Your task to perform on an android device: toggle sleep mode Image 0: 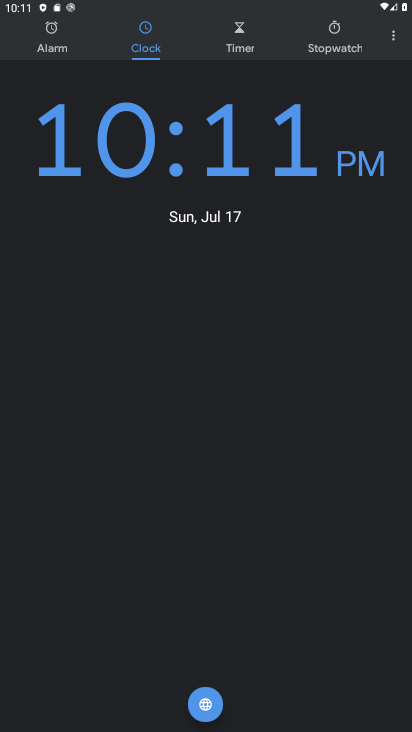
Step 0: press home button
Your task to perform on an android device: toggle sleep mode Image 1: 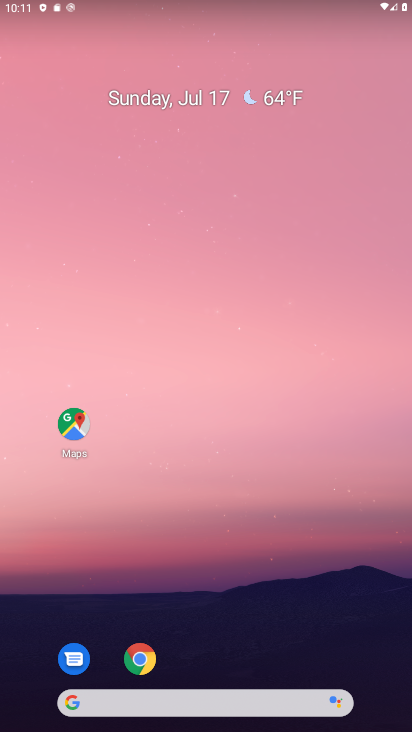
Step 1: drag from (210, 713) to (218, 91)
Your task to perform on an android device: toggle sleep mode Image 2: 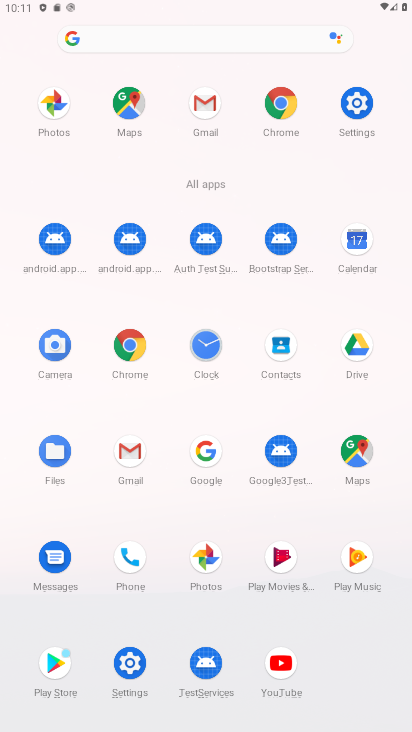
Step 2: click (360, 107)
Your task to perform on an android device: toggle sleep mode Image 3: 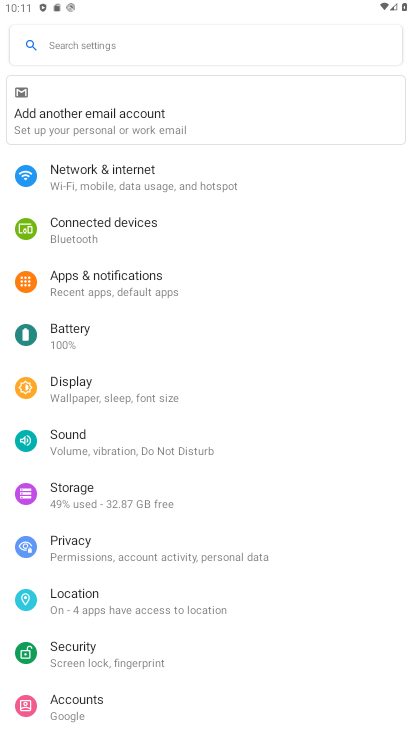
Step 3: click (147, 406)
Your task to perform on an android device: toggle sleep mode Image 4: 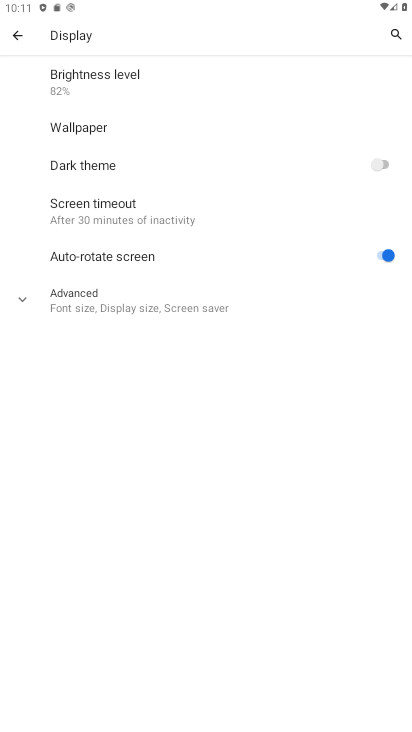
Step 4: click (128, 312)
Your task to perform on an android device: toggle sleep mode Image 5: 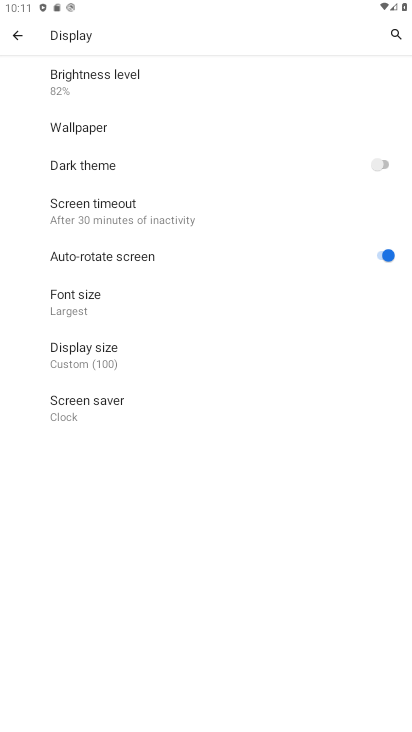
Step 5: task complete